Your task to perform on an android device: change the clock display to show seconds Image 0: 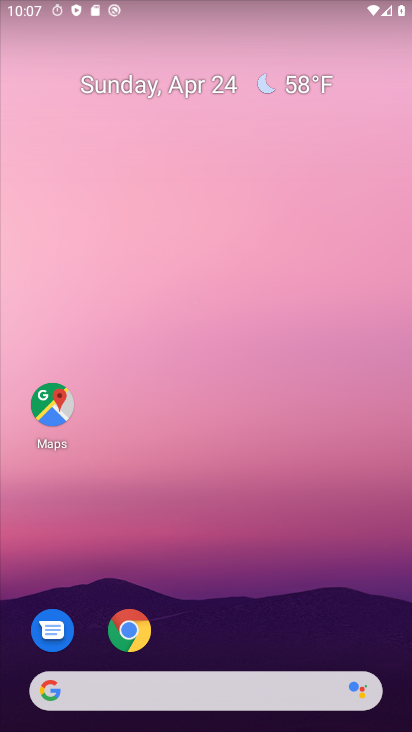
Step 0: drag from (202, 586) to (217, 3)
Your task to perform on an android device: change the clock display to show seconds Image 1: 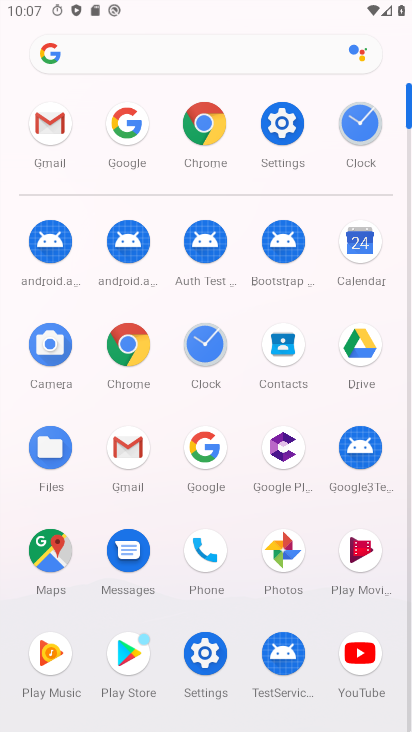
Step 1: click (196, 368)
Your task to perform on an android device: change the clock display to show seconds Image 2: 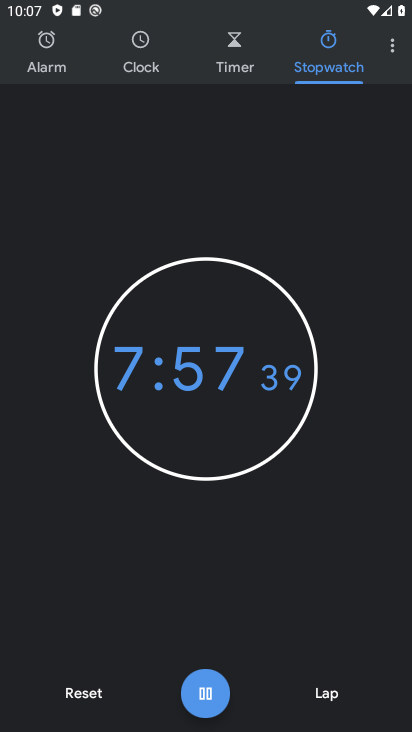
Step 2: click (394, 49)
Your task to perform on an android device: change the clock display to show seconds Image 3: 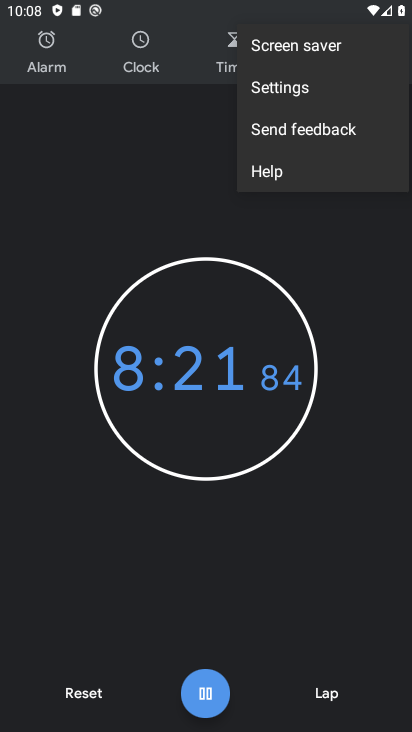
Step 3: click (305, 85)
Your task to perform on an android device: change the clock display to show seconds Image 4: 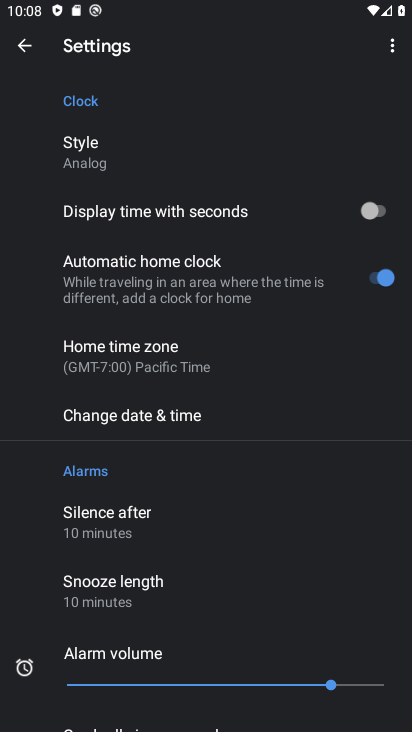
Step 4: click (372, 211)
Your task to perform on an android device: change the clock display to show seconds Image 5: 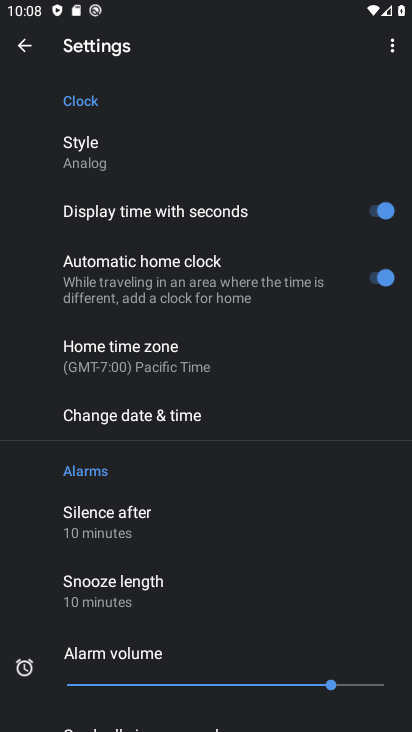
Step 5: task complete